Your task to perform on an android device: delete a single message in the gmail app Image 0: 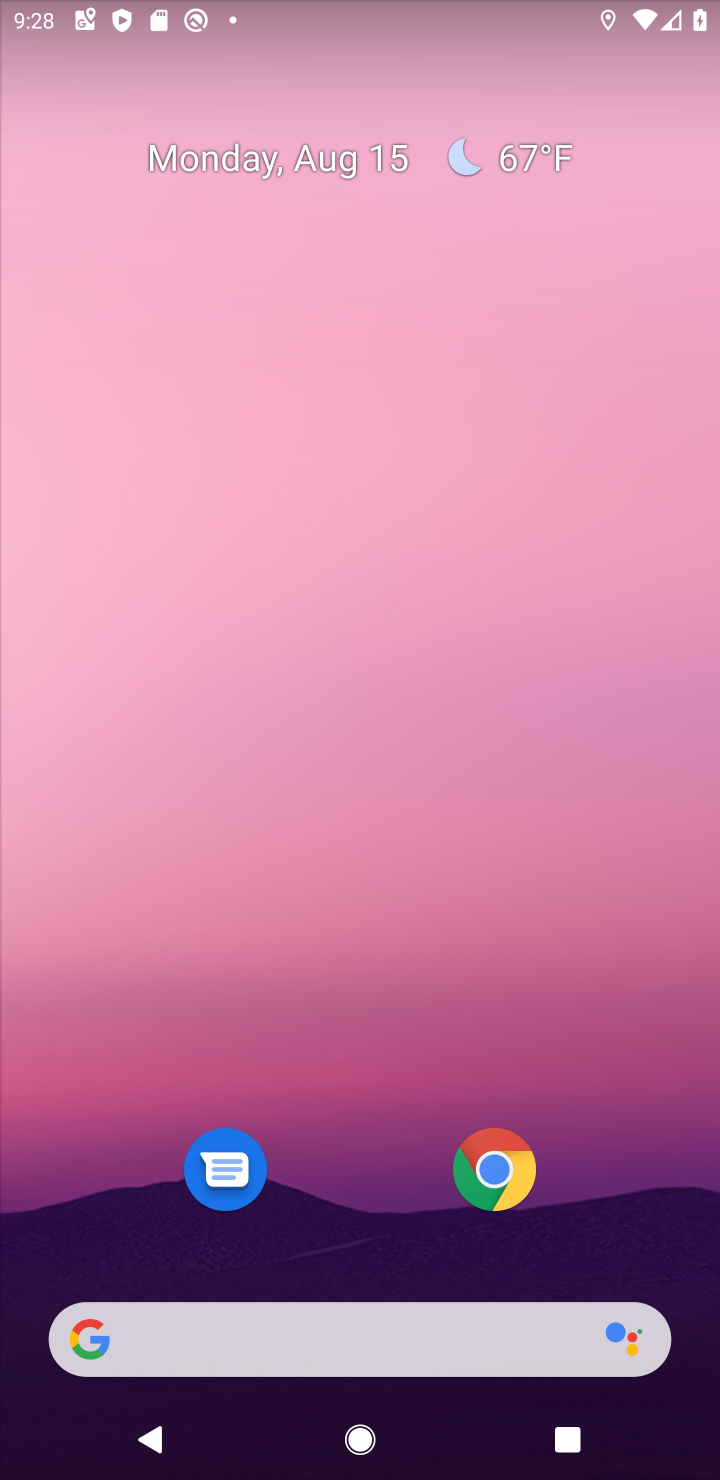
Step 0: press home button
Your task to perform on an android device: delete a single message in the gmail app Image 1: 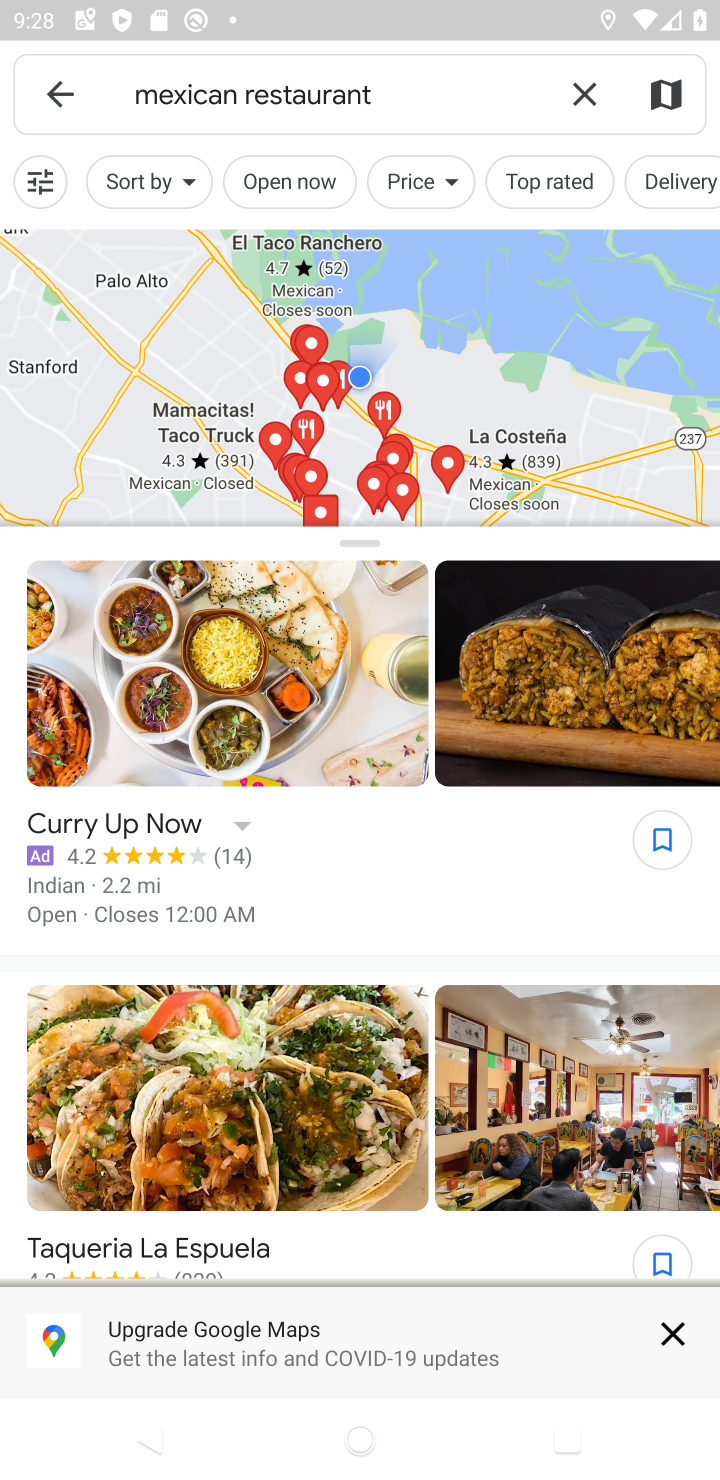
Step 1: drag from (435, 988) to (576, 90)
Your task to perform on an android device: delete a single message in the gmail app Image 2: 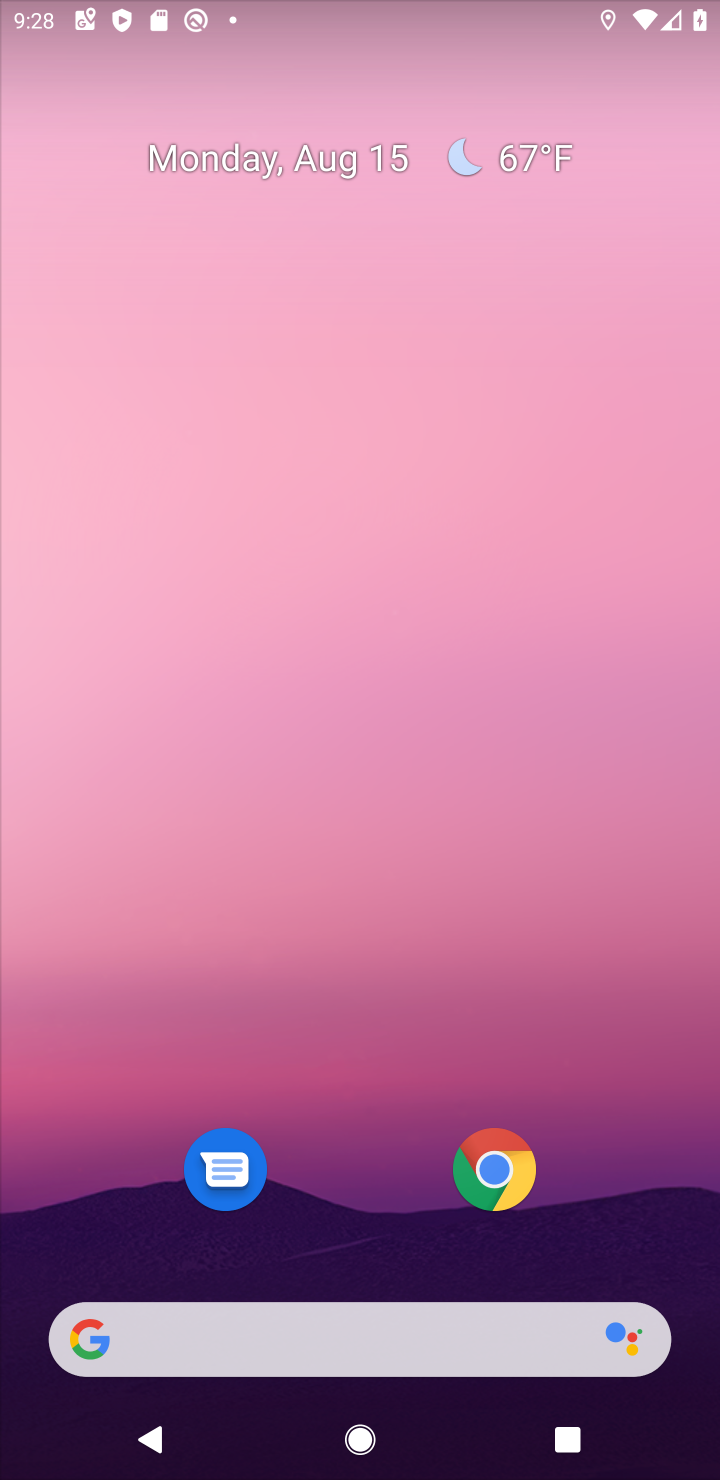
Step 2: press home button
Your task to perform on an android device: delete a single message in the gmail app Image 3: 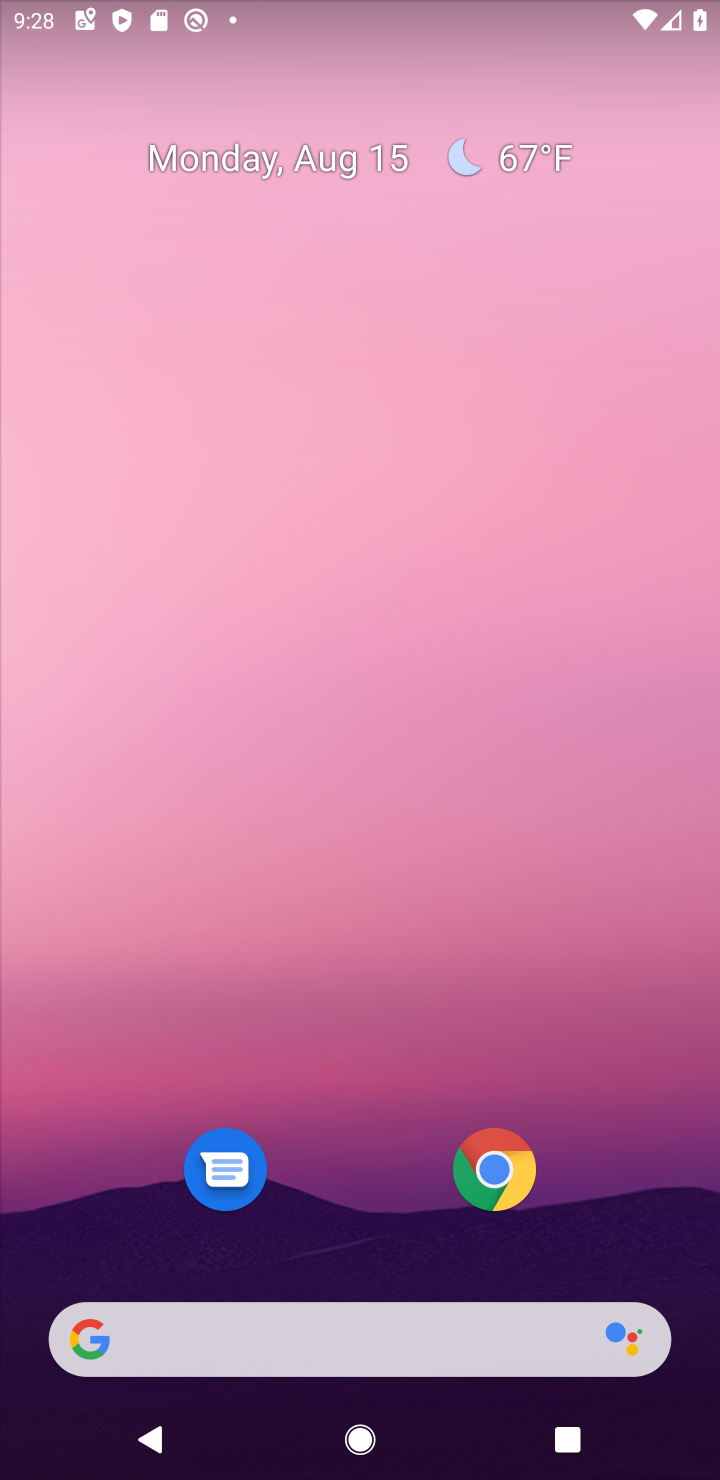
Step 3: drag from (291, 1342) to (531, 234)
Your task to perform on an android device: delete a single message in the gmail app Image 4: 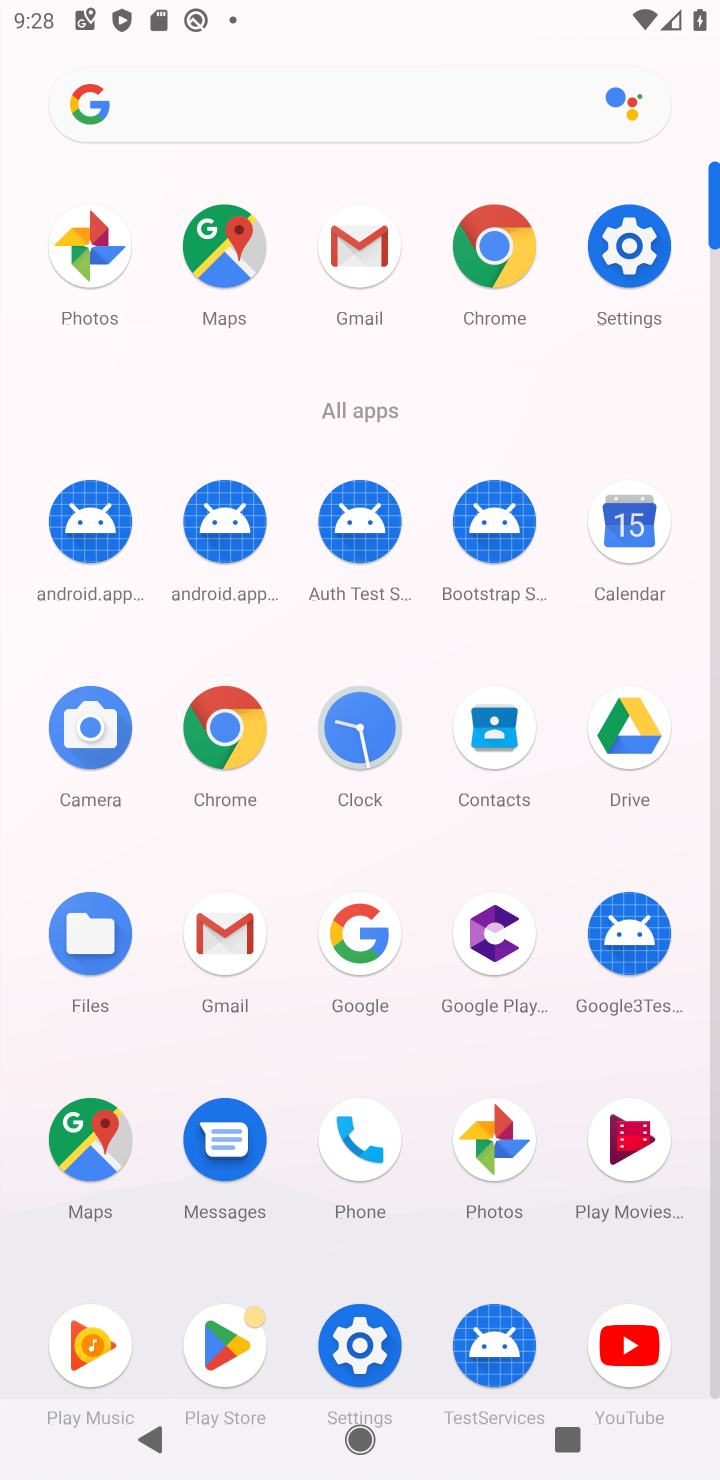
Step 4: click (351, 256)
Your task to perform on an android device: delete a single message in the gmail app Image 5: 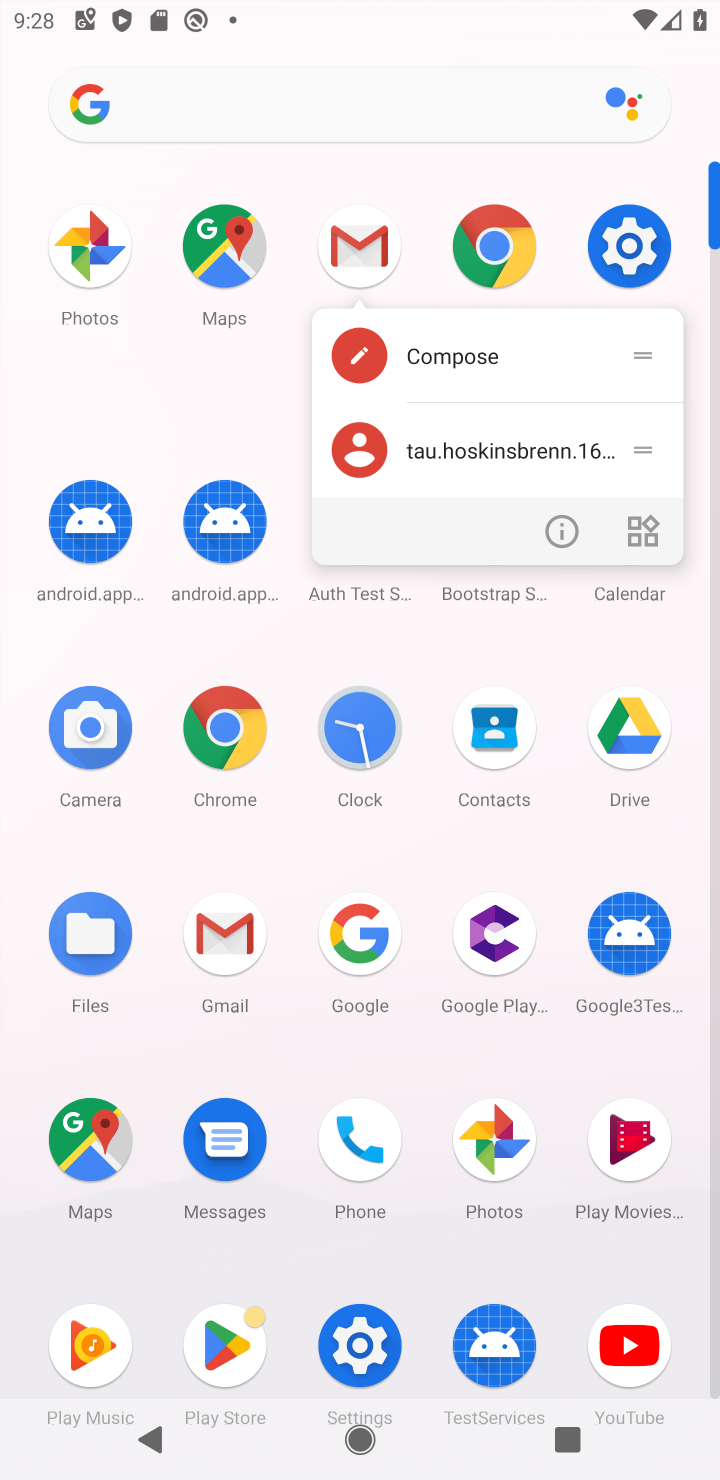
Step 5: click (351, 254)
Your task to perform on an android device: delete a single message in the gmail app Image 6: 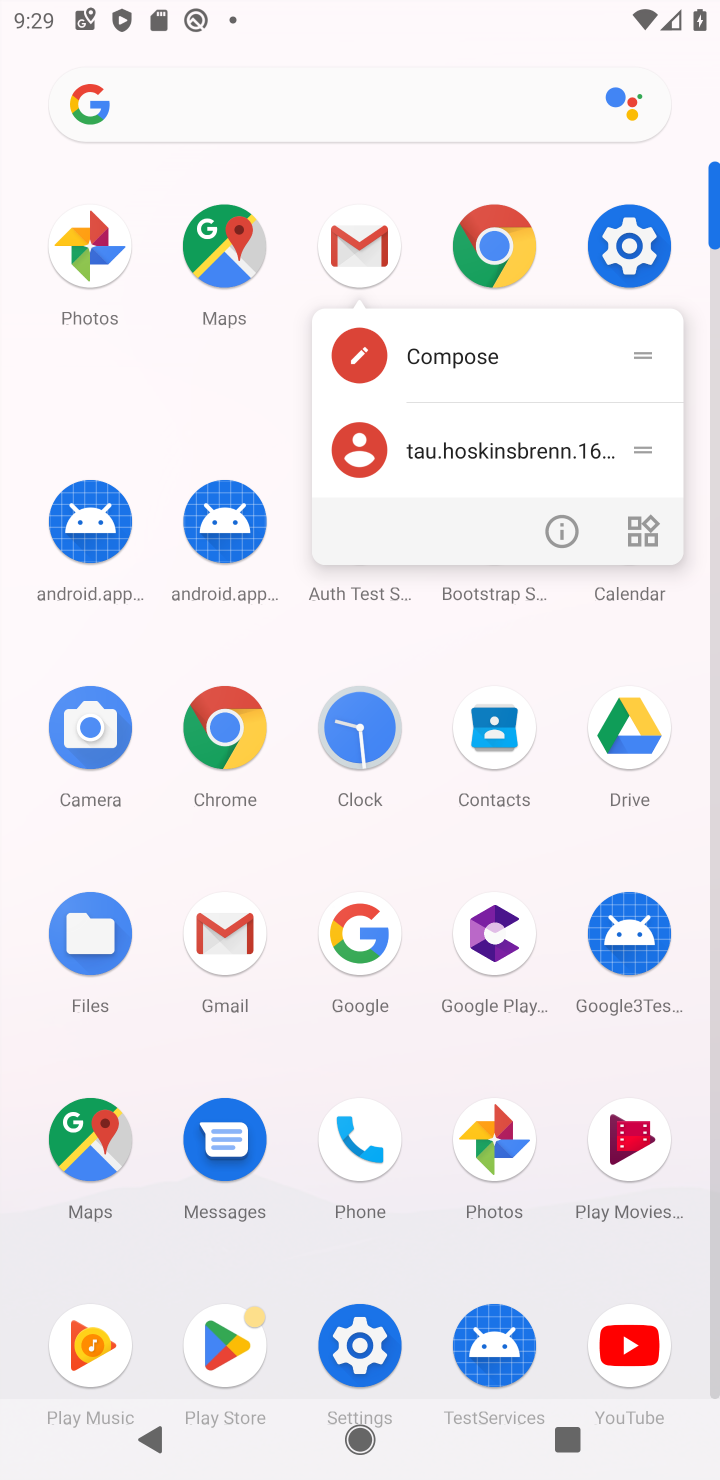
Step 6: click (358, 256)
Your task to perform on an android device: delete a single message in the gmail app Image 7: 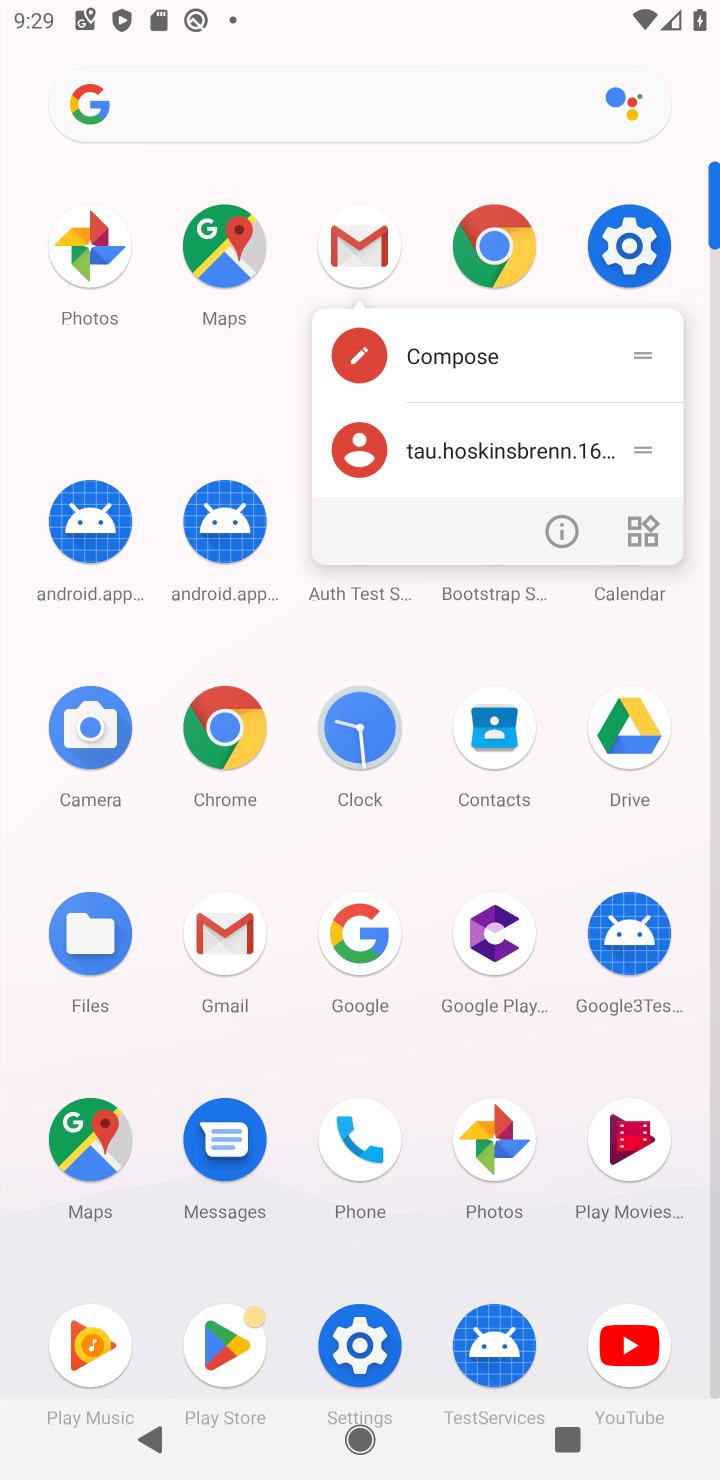
Step 7: click (358, 254)
Your task to perform on an android device: delete a single message in the gmail app Image 8: 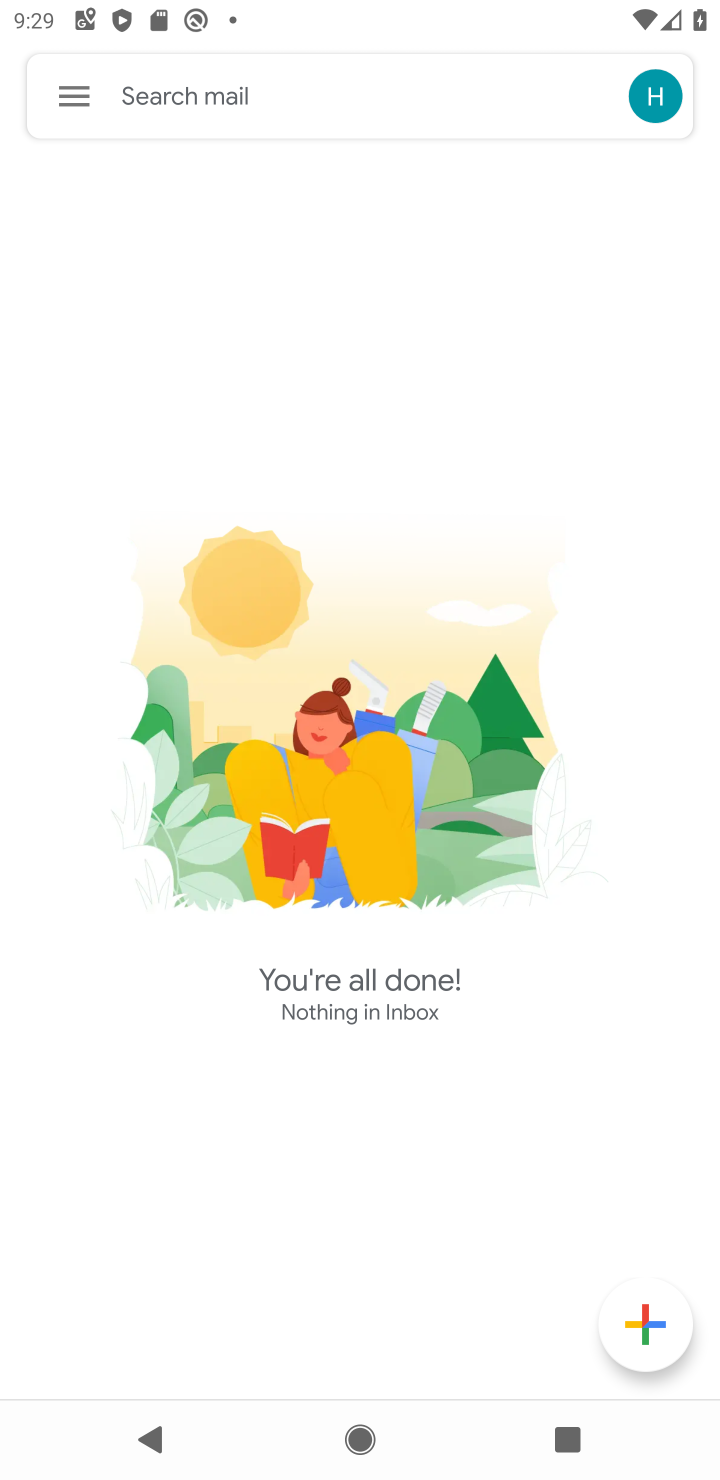
Step 8: click (76, 80)
Your task to perform on an android device: delete a single message in the gmail app Image 9: 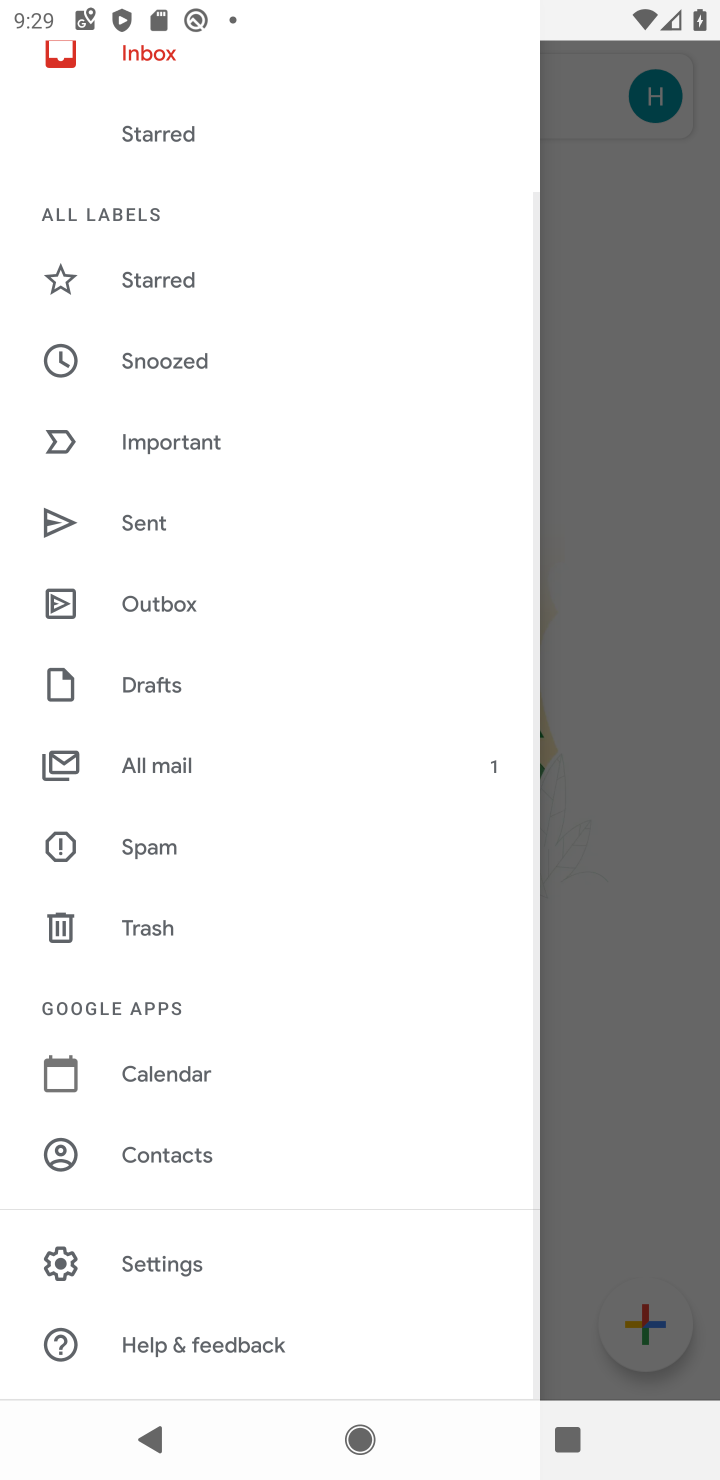
Step 9: click (181, 765)
Your task to perform on an android device: delete a single message in the gmail app Image 10: 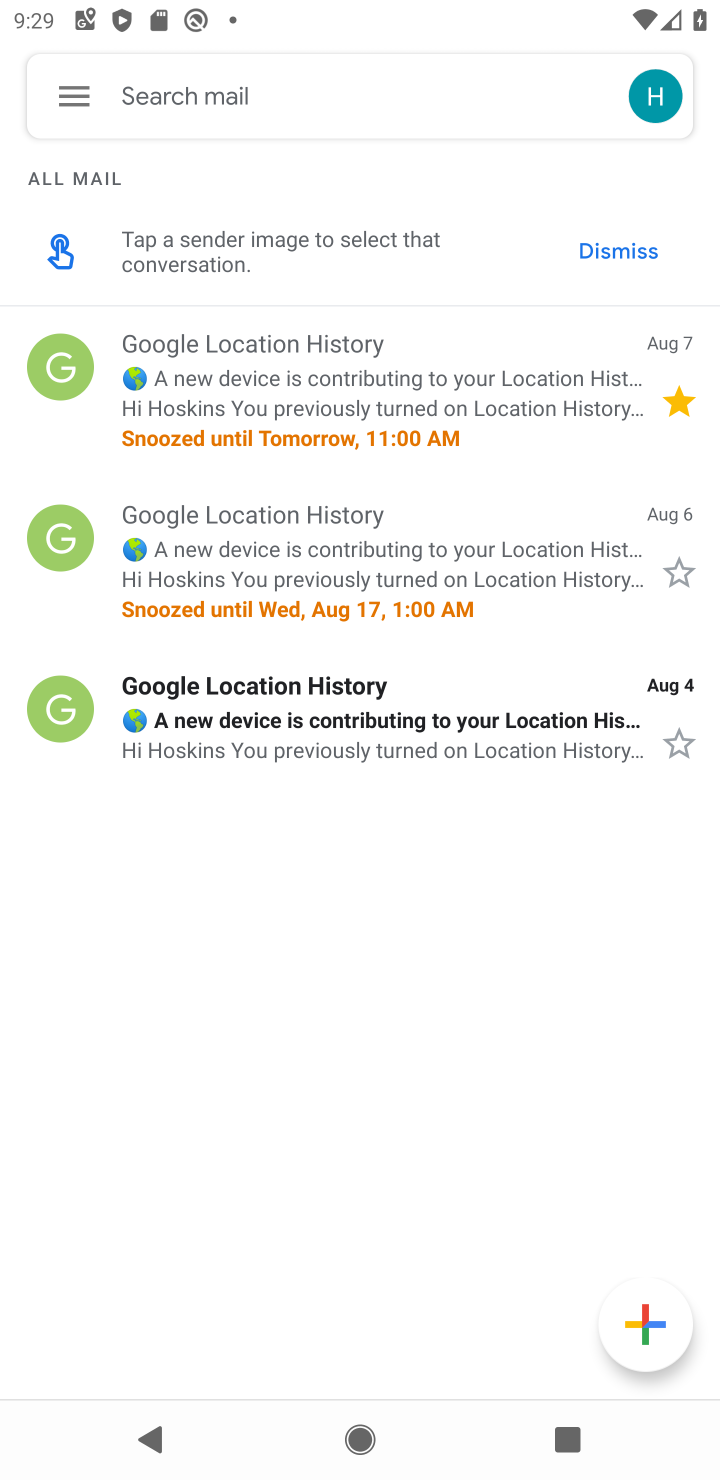
Step 10: click (60, 369)
Your task to perform on an android device: delete a single message in the gmail app Image 11: 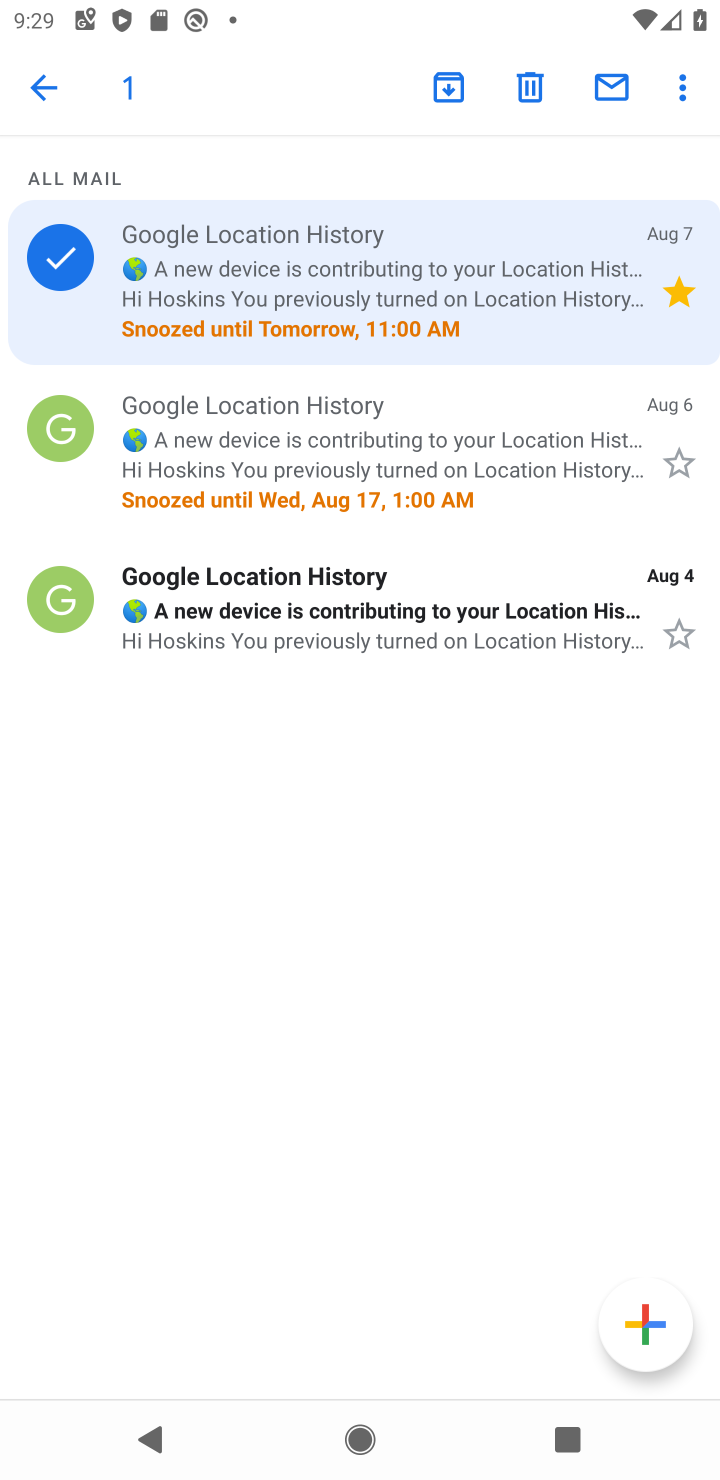
Step 11: click (520, 80)
Your task to perform on an android device: delete a single message in the gmail app Image 12: 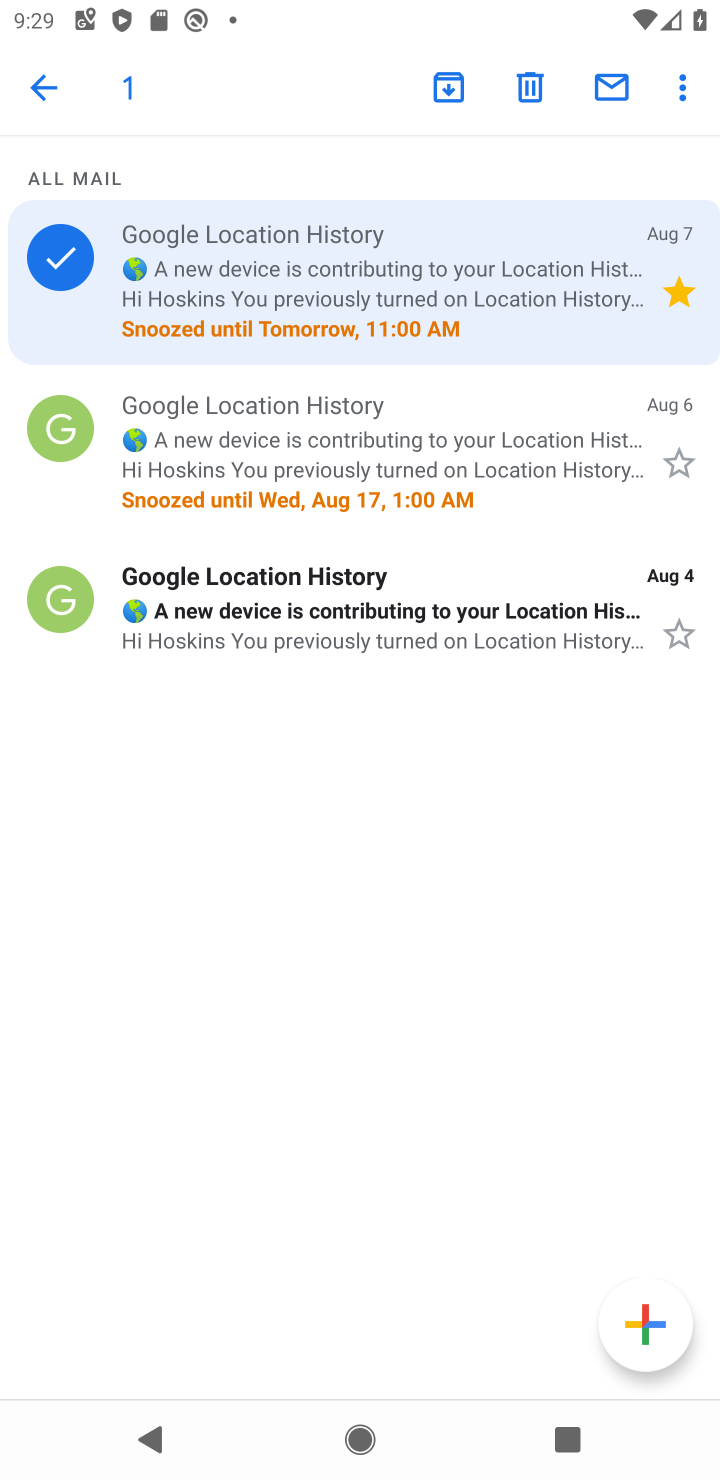
Step 12: click (534, 84)
Your task to perform on an android device: delete a single message in the gmail app Image 13: 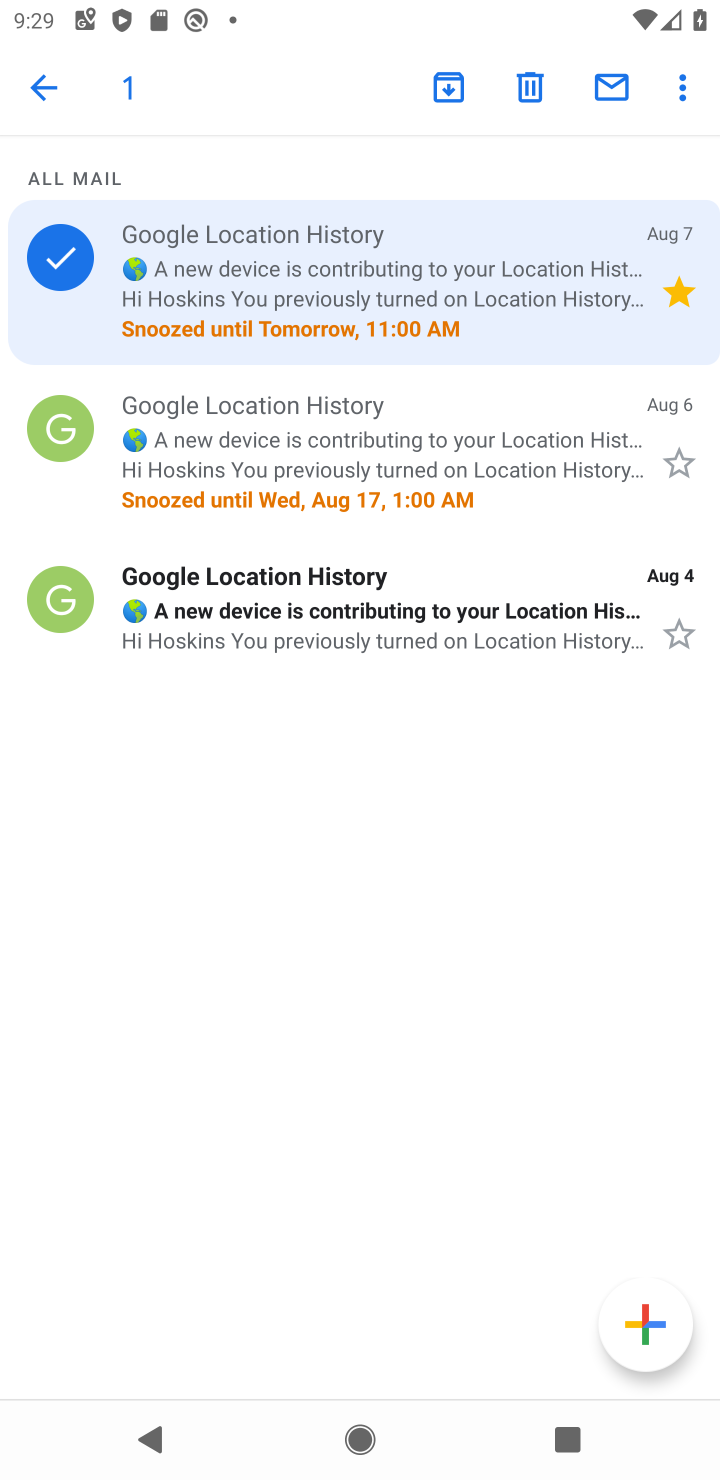
Step 13: click (523, 91)
Your task to perform on an android device: delete a single message in the gmail app Image 14: 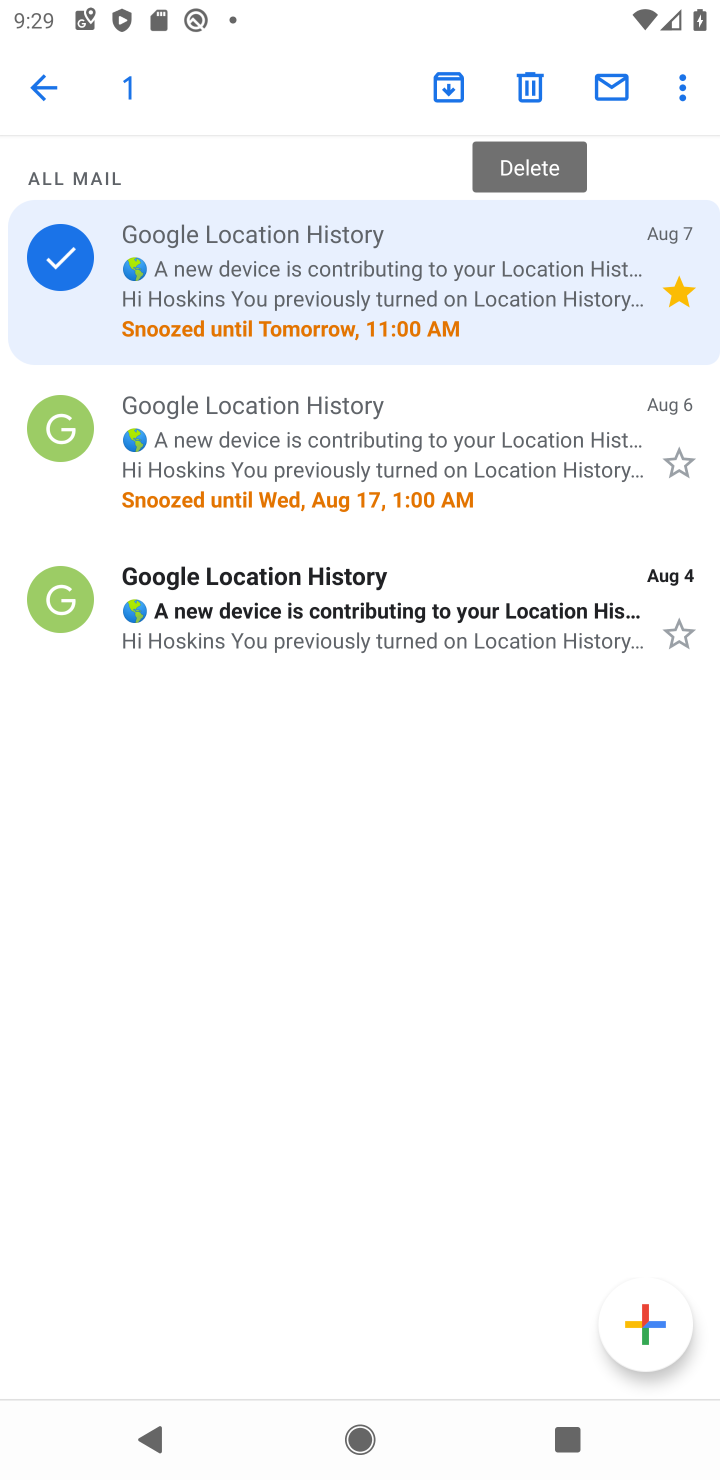
Step 14: click (523, 91)
Your task to perform on an android device: delete a single message in the gmail app Image 15: 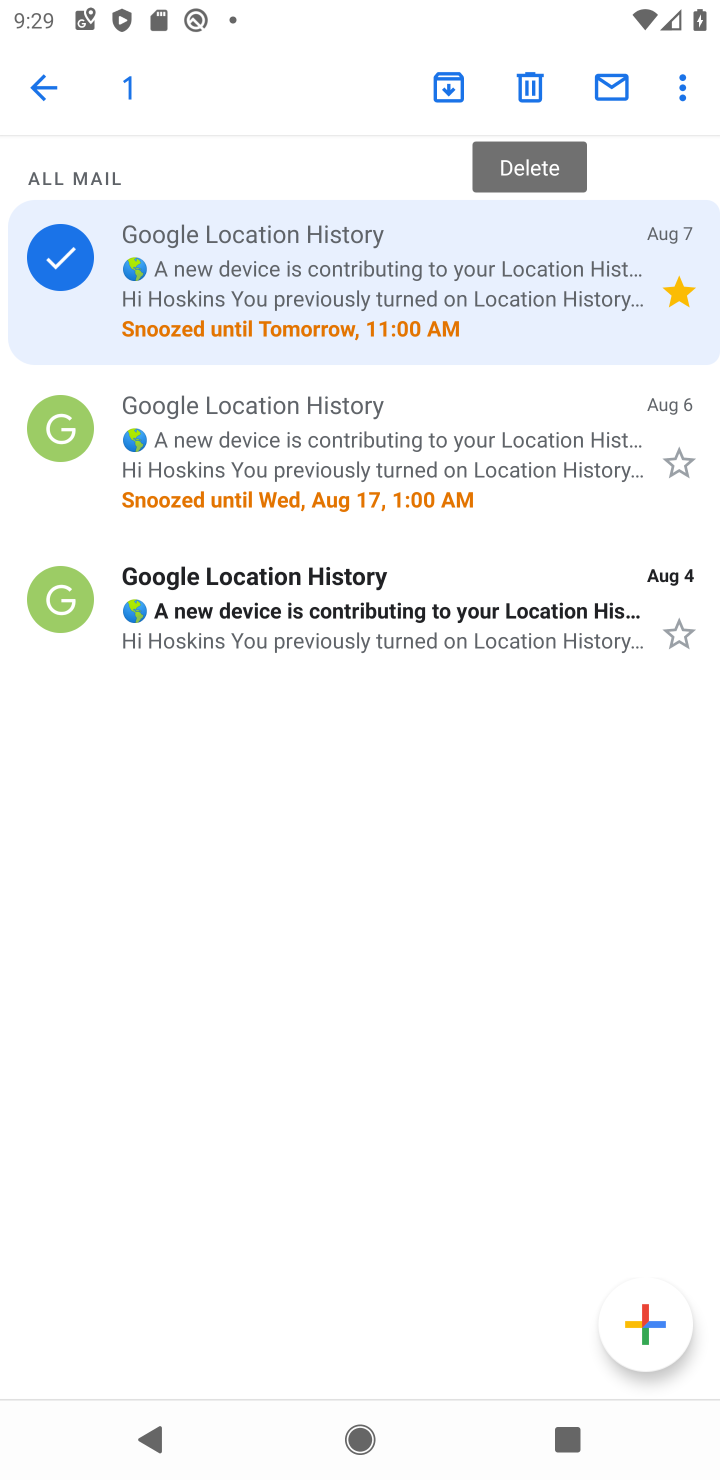
Step 15: click (523, 98)
Your task to perform on an android device: delete a single message in the gmail app Image 16: 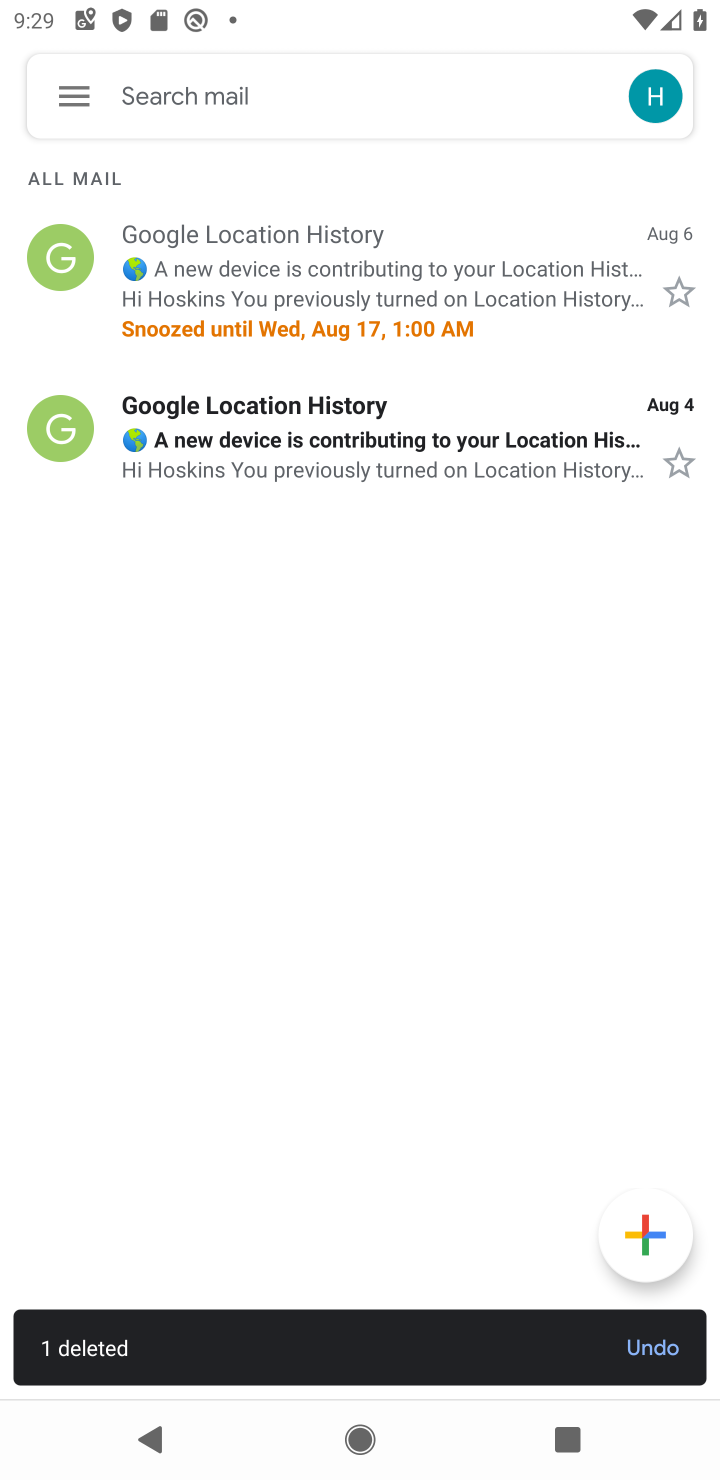
Step 16: task complete